Your task to perform on an android device: Go to ESPN.com Image 0: 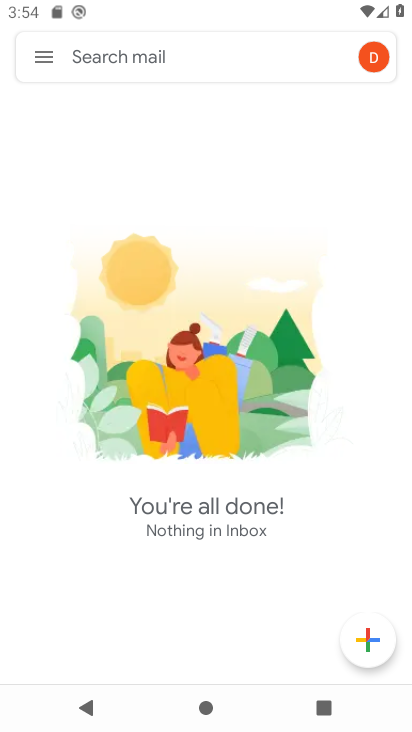
Step 0: press home button
Your task to perform on an android device: Go to ESPN.com Image 1: 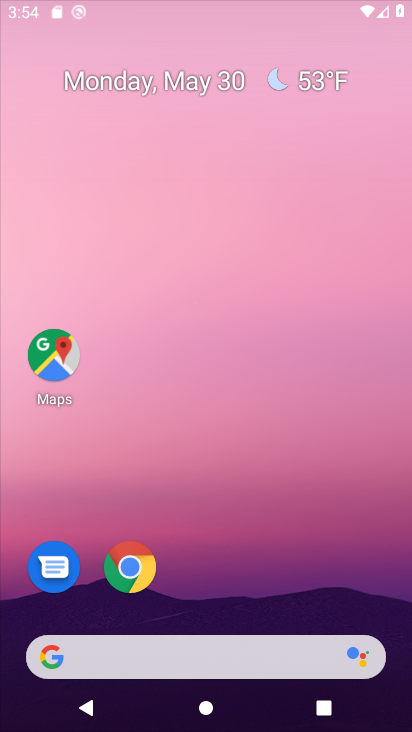
Step 1: drag from (226, 659) to (272, 36)
Your task to perform on an android device: Go to ESPN.com Image 2: 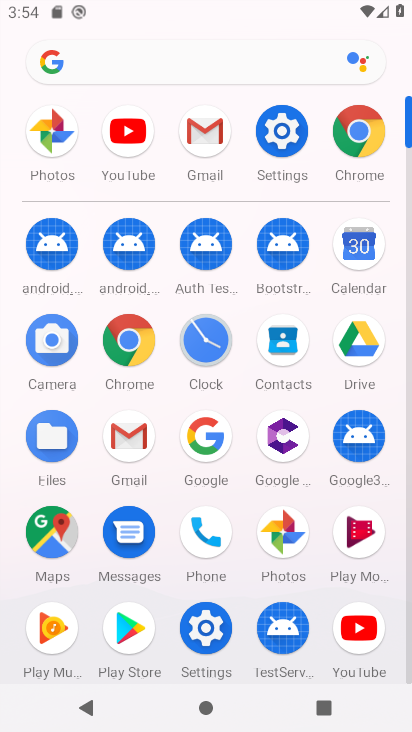
Step 2: click (138, 340)
Your task to perform on an android device: Go to ESPN.com Image 3: 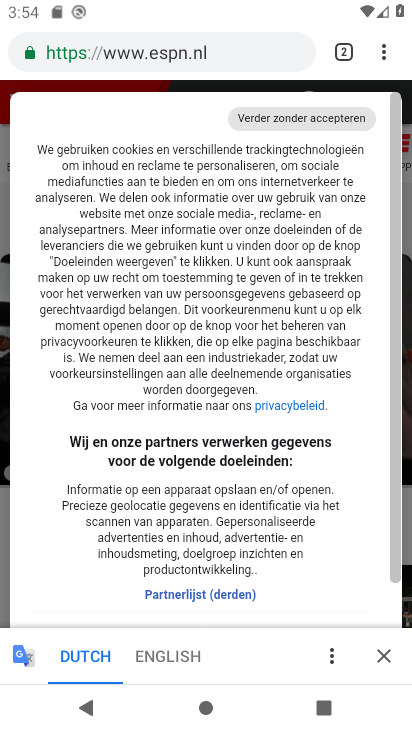
Step 3: task complete